Your task to perform on an android device: toggle javascript in the chrome app Image 0: 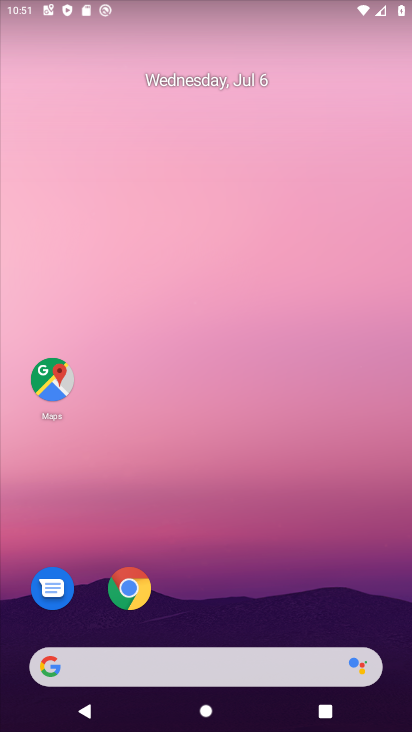
Step 0: drag from (256, 610) to (233, 263)
Your task to perform on an android device: toggle javascript in the chrome app Image 1: 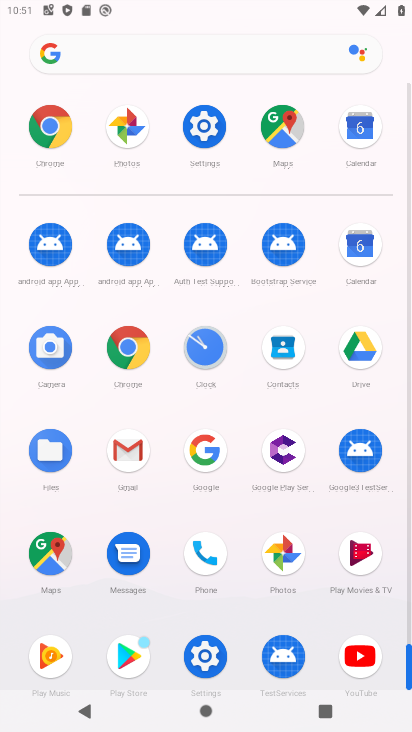
Step 1: click (134, 338)
Your task to perform on an android device: toggle javascript in the chrome app Image 2: 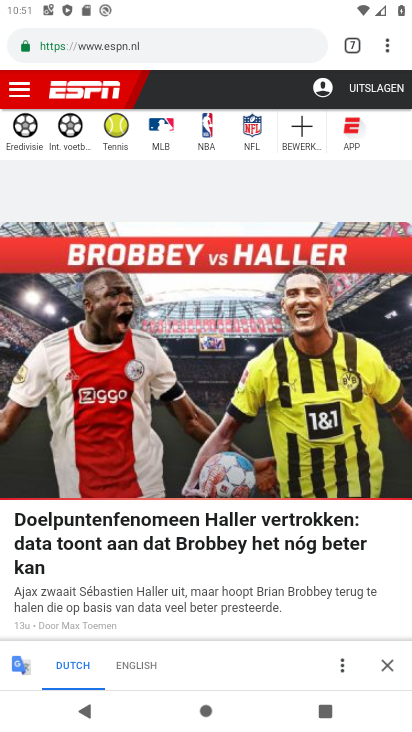
Step 2: click (393, 49)
Your task to perform on an android device: toggle javascript in the chrome app Image 3: 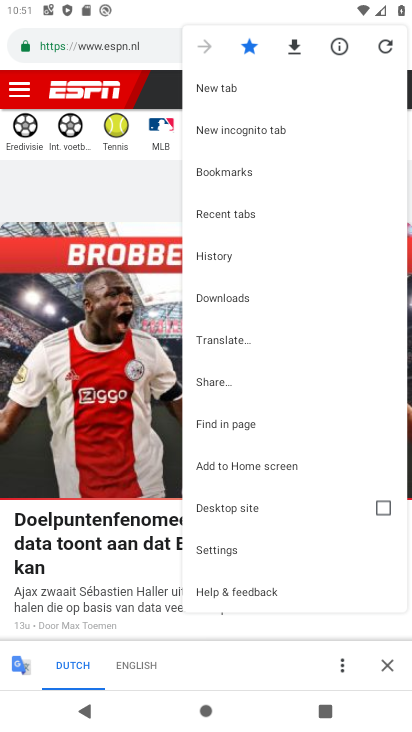
Step 3: click (244, 553)
Your task to perform on an android device: toggle javascript in the chrome app Image 4: 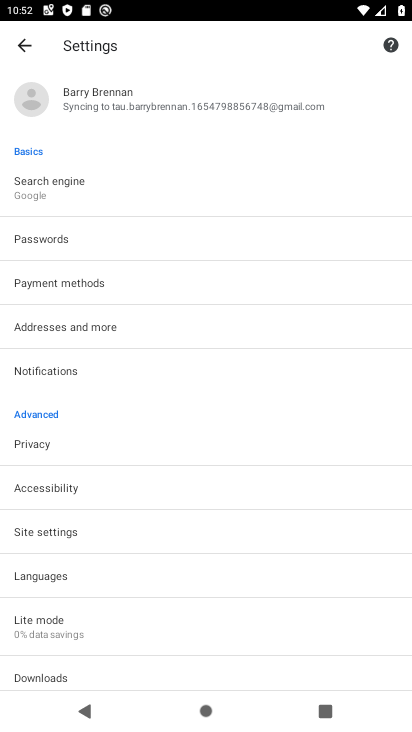
Step 4: click (84, 527)
Your task to perform on an android device: toggle javascript in the chrome app Image 5: 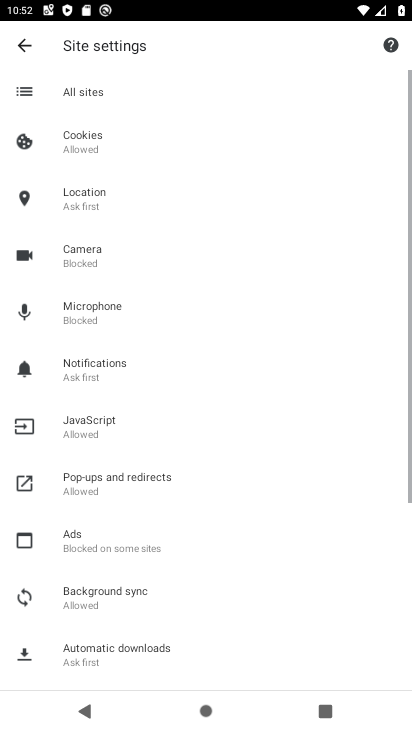
Step 5: drag from (184, 604) to (209, 402)
Your task to perform on an android device: toggle javascript in the chrome app Image 6: 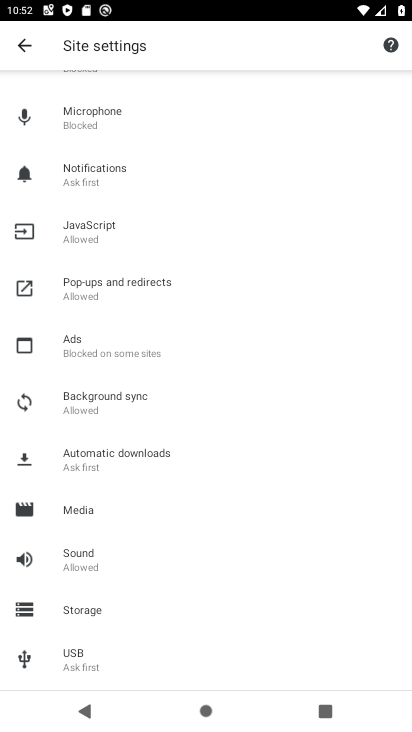
Step 6: click (87, 224)
Your task to perform on an android device: toggle javascript in the chrome app Image 7: 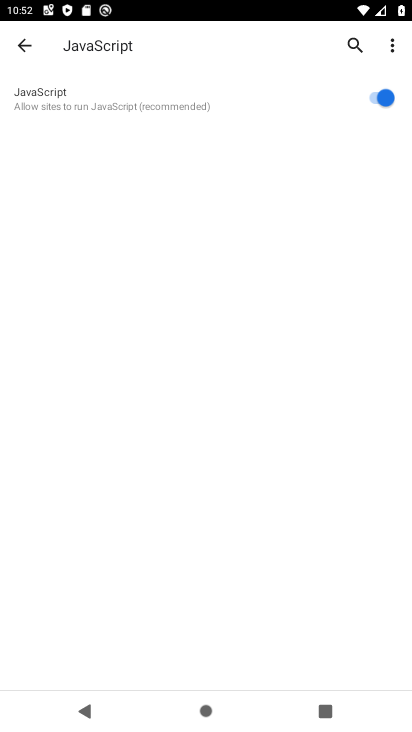
Step 7: task complete